Your task to perform on an android device: uninstall "AliExpress" Image 0: 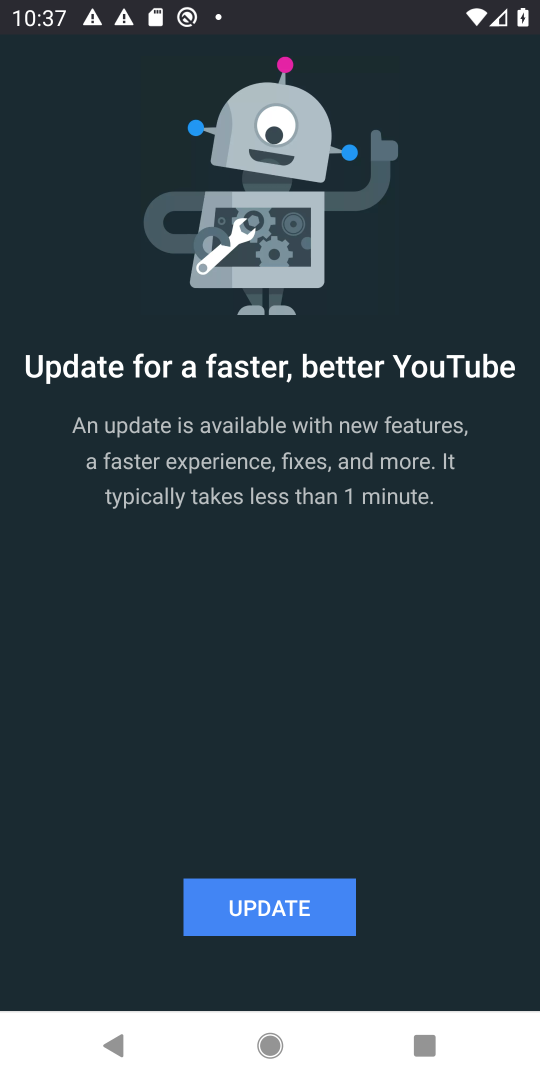
Step 0: press home button
Your task to perform on an android device: uninstall "AliExpress" Image 1: 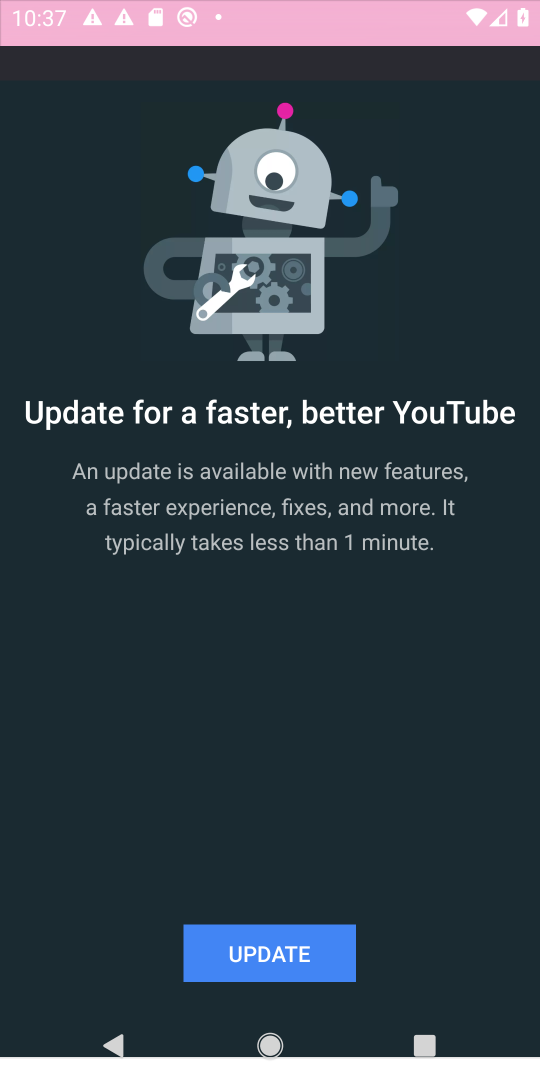
Step 1: drag from (195, 827) to (88, 656)
Your task to perform on an android device: uninstall "AliExpress" Image 2: 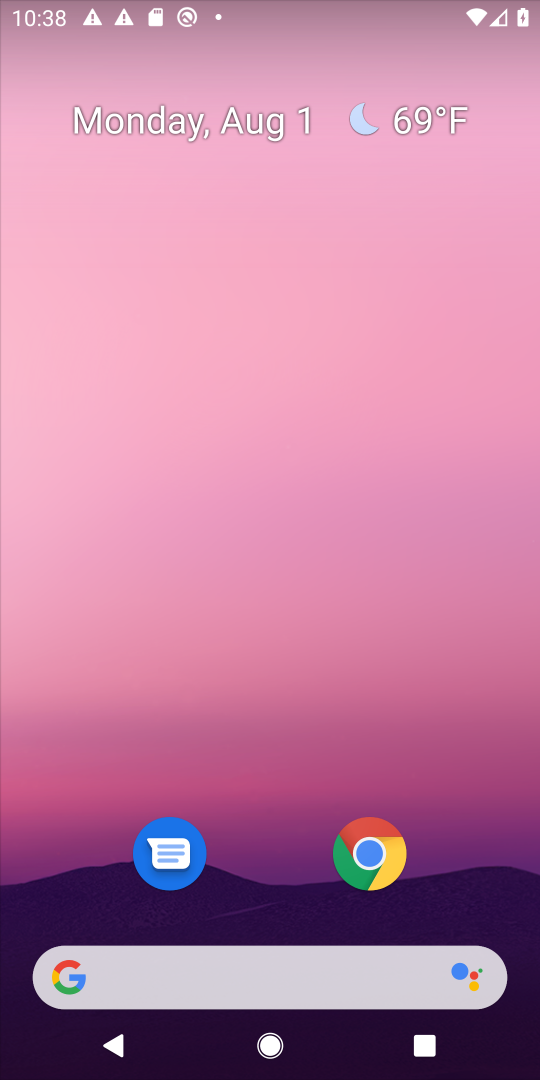
Step 2: drag from (253, 792) to (171, 13)
Your task to perform on an android device: uninstall "AliExpress" Image 3: 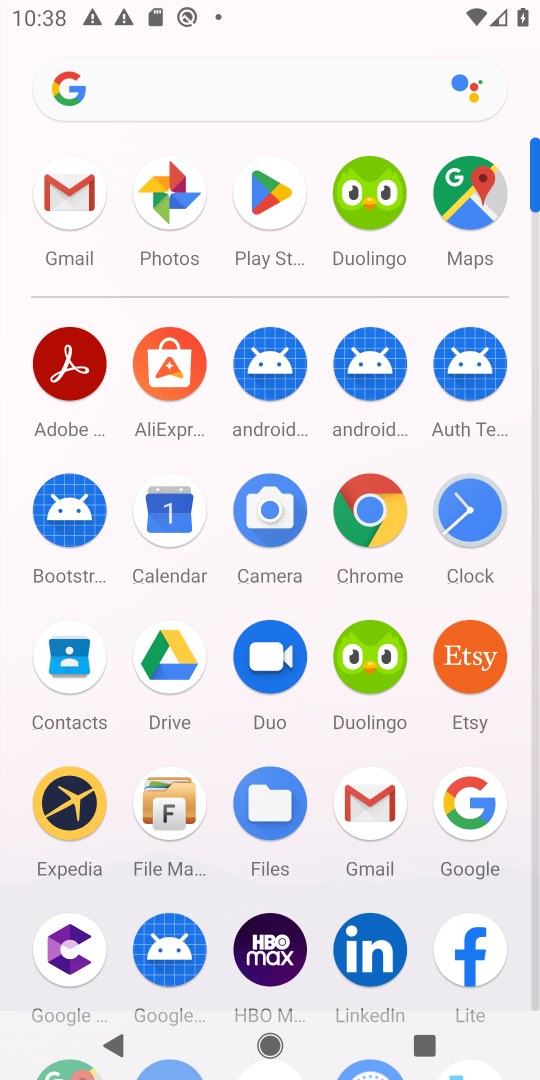
Step 3: click (258, 205)
Your task to perform on an android device: uninstall "AliExpress" Image 4: 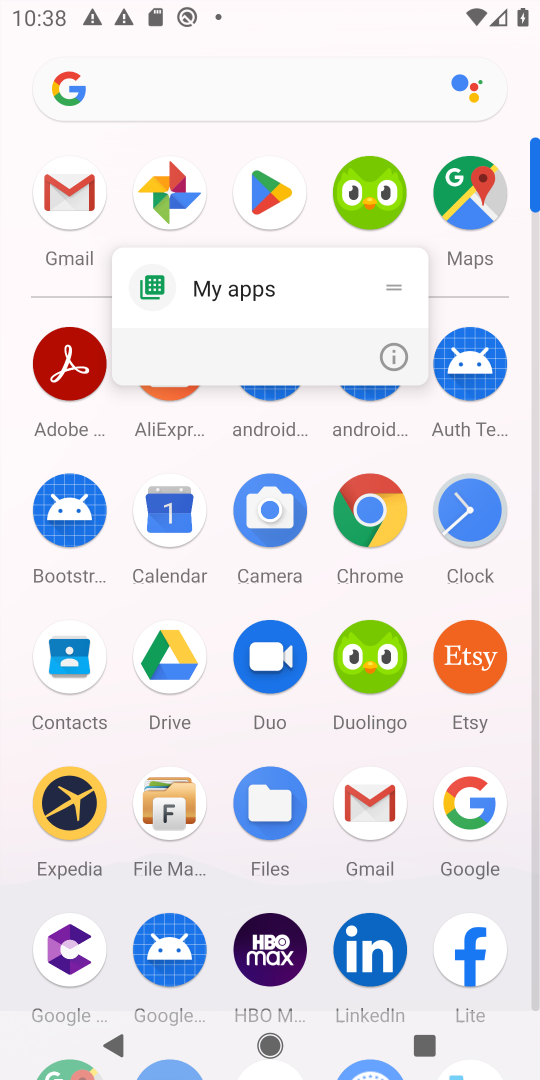
Step 4: click (400, 357)
Your task to perform on an android device: uninstall "AliExpress" Image 5: 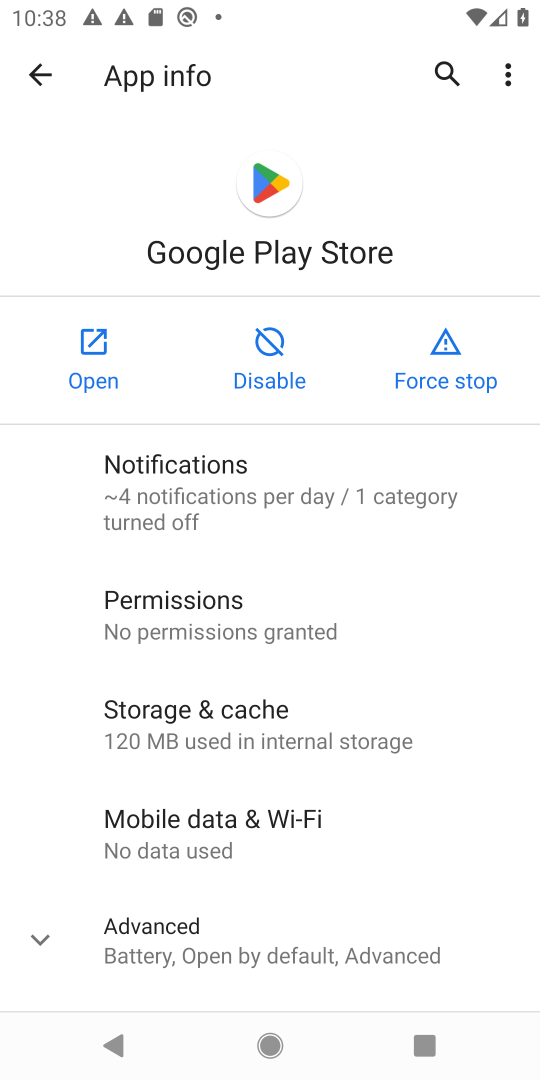
Step 5: click (86, 364)
Your task to perform on an android device: uninstall "AliExpress" Image 6: 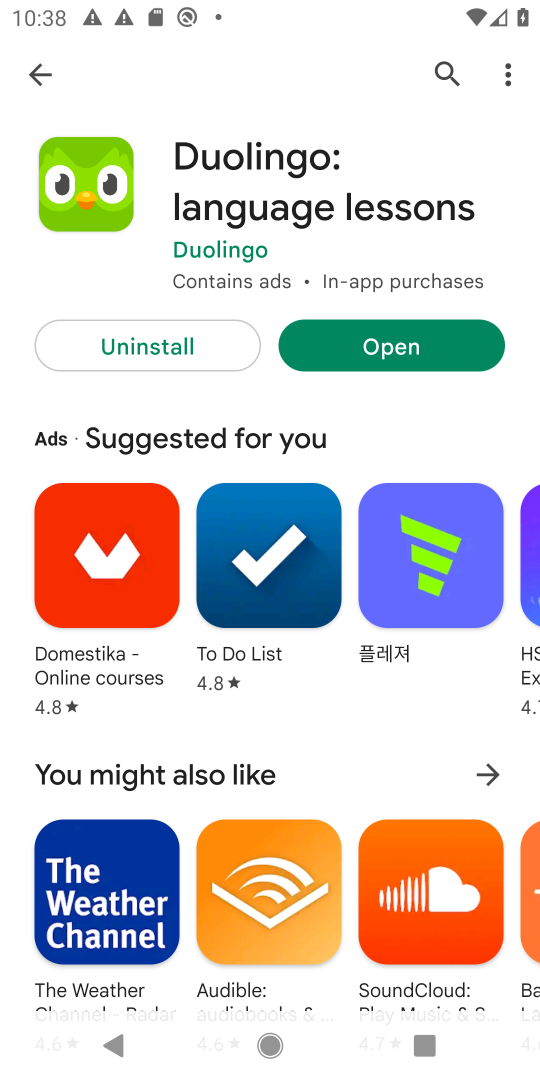
Step 6: click (439, 71)
Your task to perform on an android device: uninstall "AliExpress" Image 7: 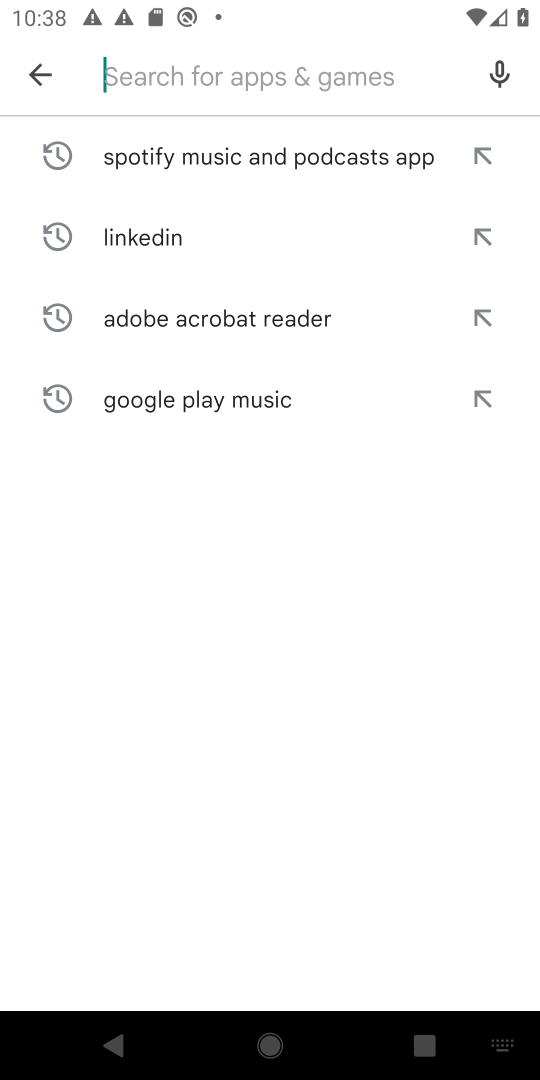
Step 7: type "AliExpress"
Your task to perform on an android device: uninstall "AliExpress" Image 8: 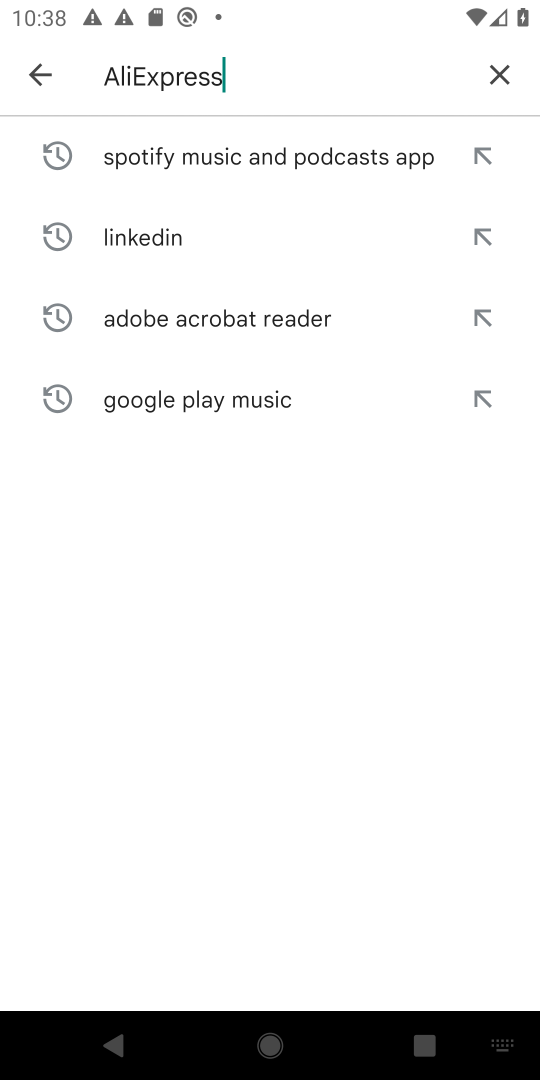
Step 8: type ""
Your task to perform on an android device: uninstall "AliExpress" Image 9: 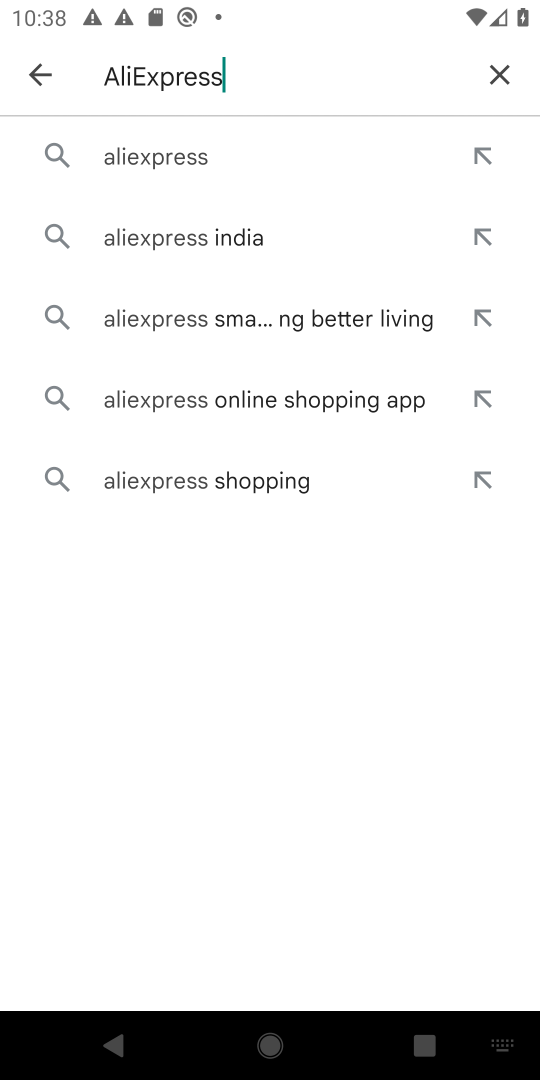
Step 9: click (150, 153)
Your task to perform on an android device: uninstall "AliExpress" Image 10: 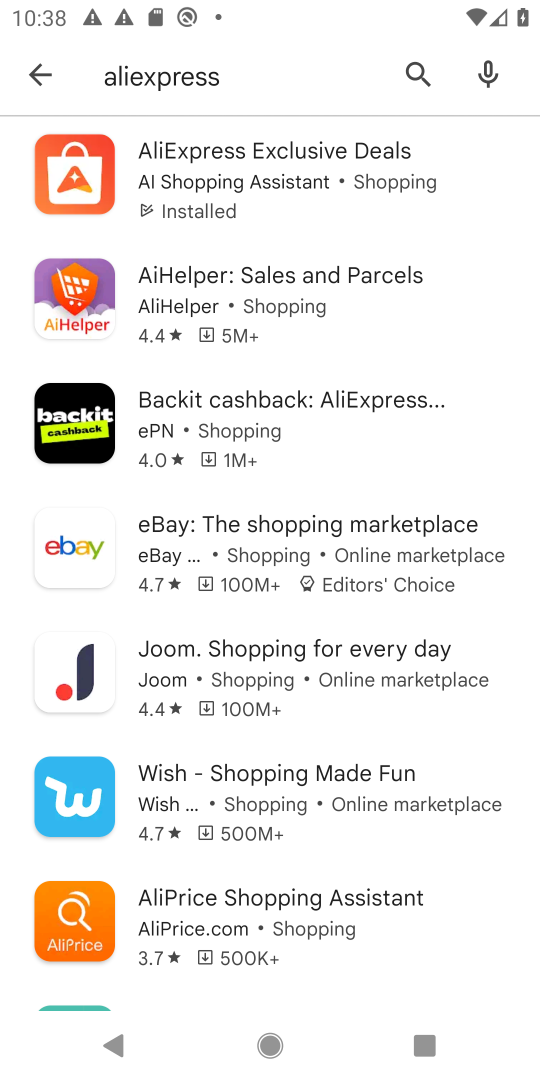
Step 10: click (272, 164)
Your task to perform on an android device: uninstall "AliExpress" Image 11: 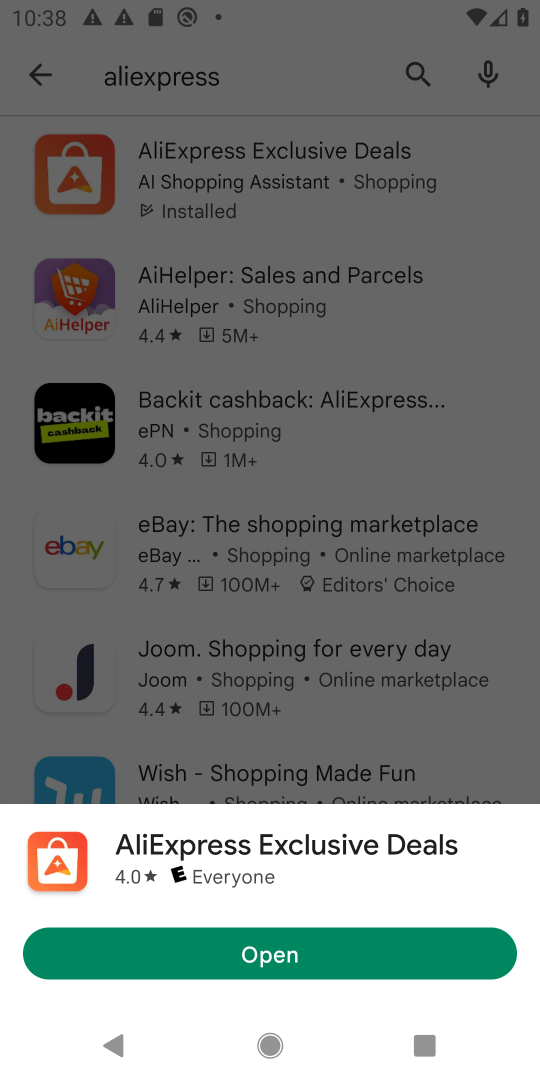
Step 11: click (264, 195)
Your task to perform on an android device: uninstall "AliExpress" Image 12: 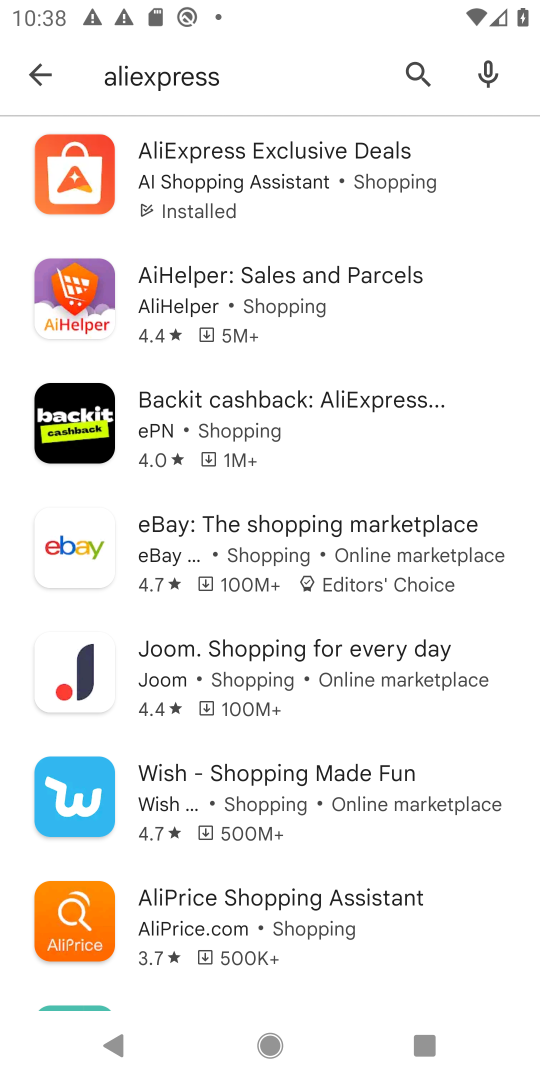
Step 12: click (215, 170)
Your task to perform on an android device: uninstall "AliExpress" Image 13: 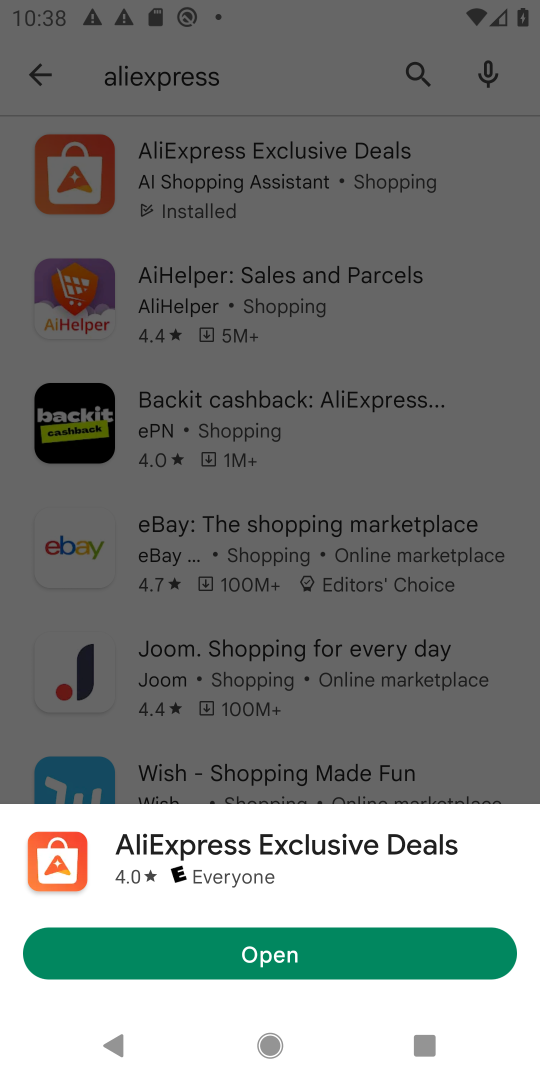
Step 13: click (80, 148)
Your task to perform on an android device: uninstall "AliExpress" Image 14: 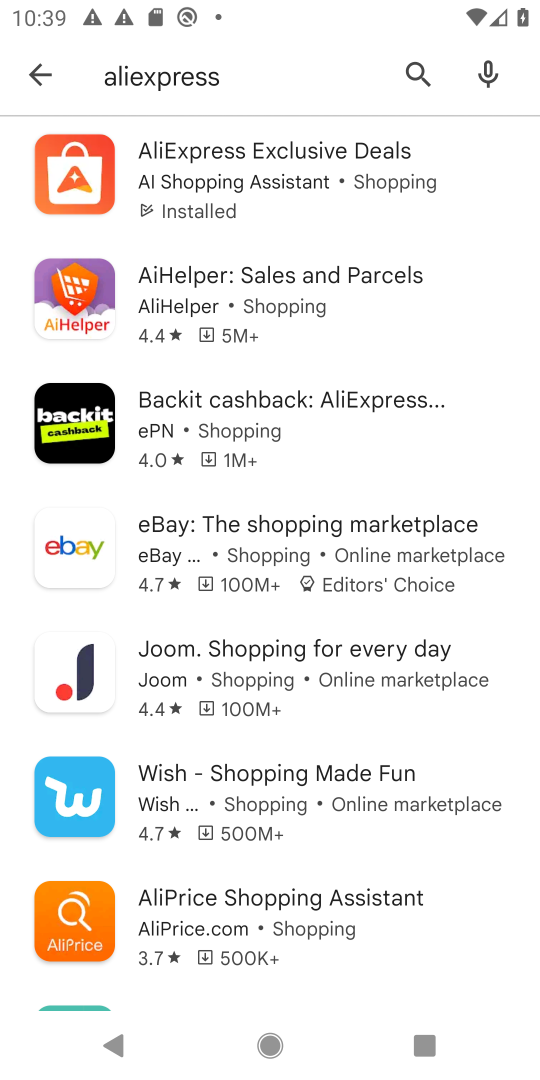
Step 14: click (90, 170)
Your task to perform on an android device: uninstall "AliExpress" Image 15: 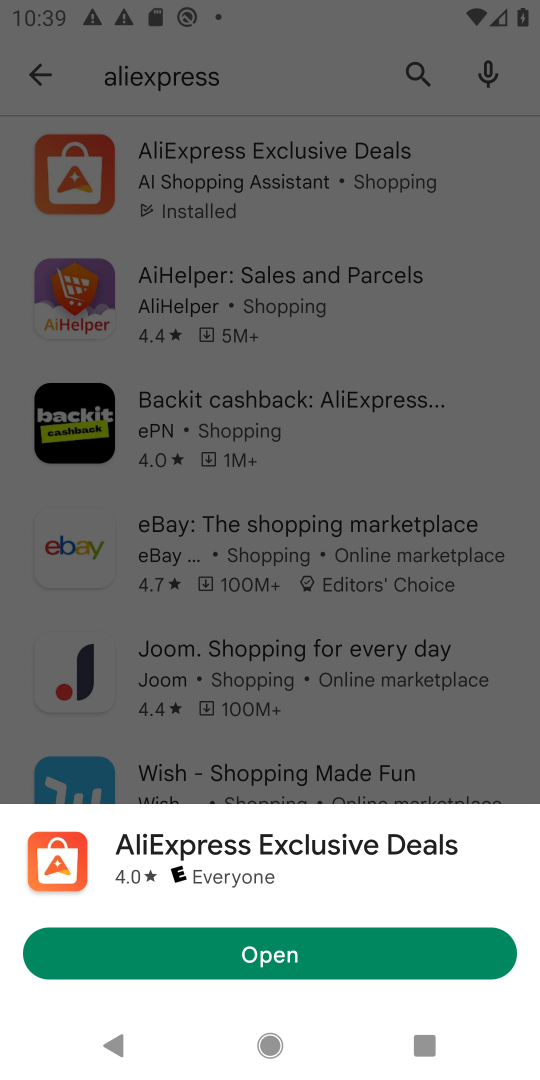
Step 15: click (87, 173)
Your task to perform on an android device: uninstall "AliExpress" Image 16: 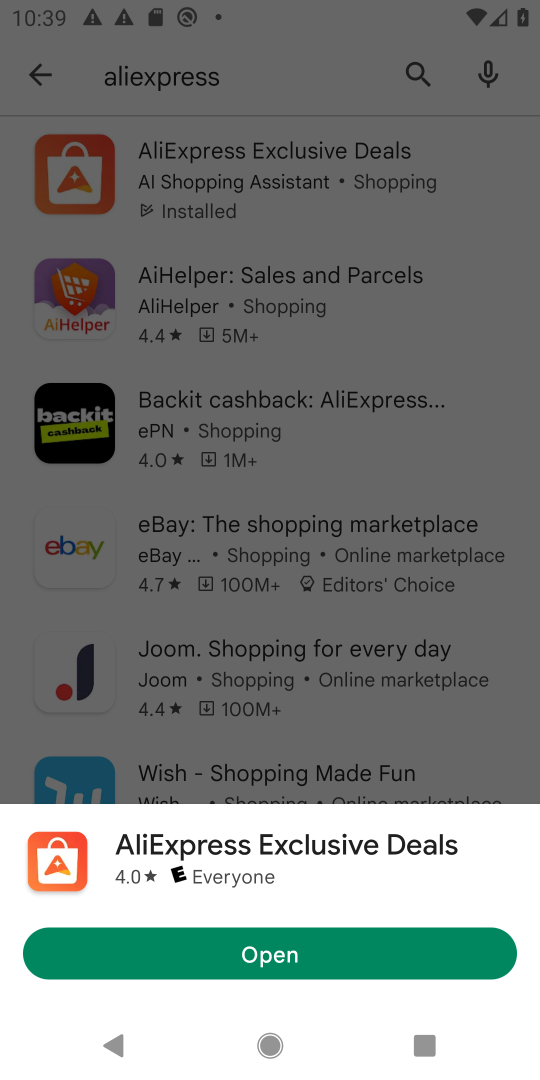
Step 16: click (87, 173)
Your task to perform on an android device: uninstall "AliExpress" Image 17: 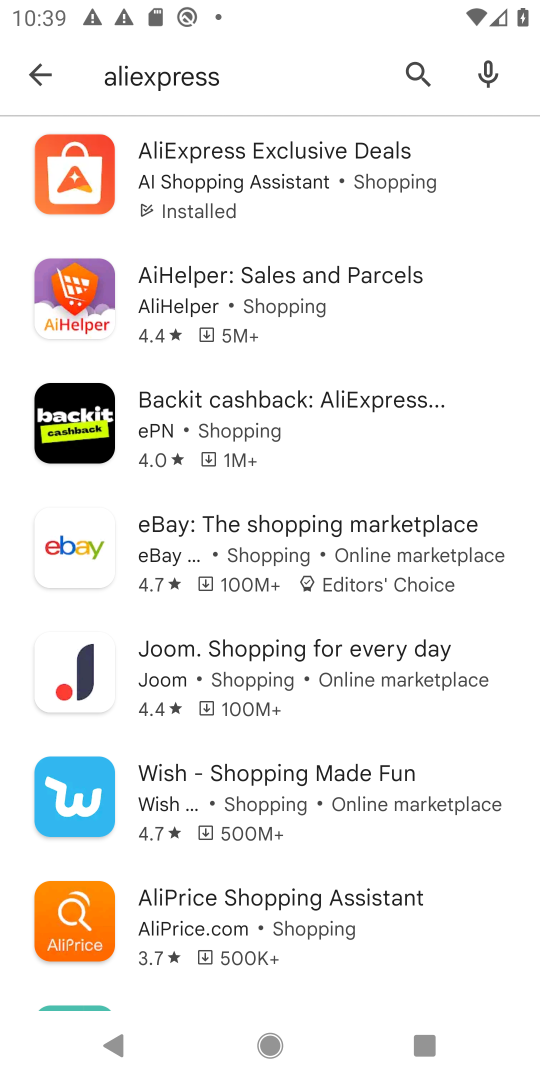
Step 17: click (110, 166)
Your task to perform on an android device: uninstall "AliExpress" Image 18: 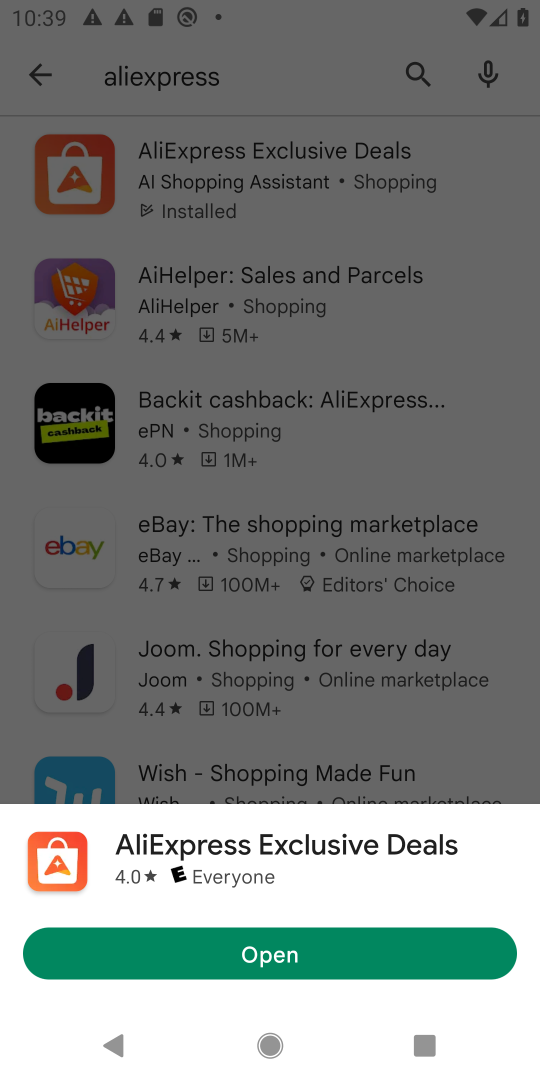
Step 18: click (217, 941)
Your task to perform on an android device: uninstall "AliExpress" Image 19: 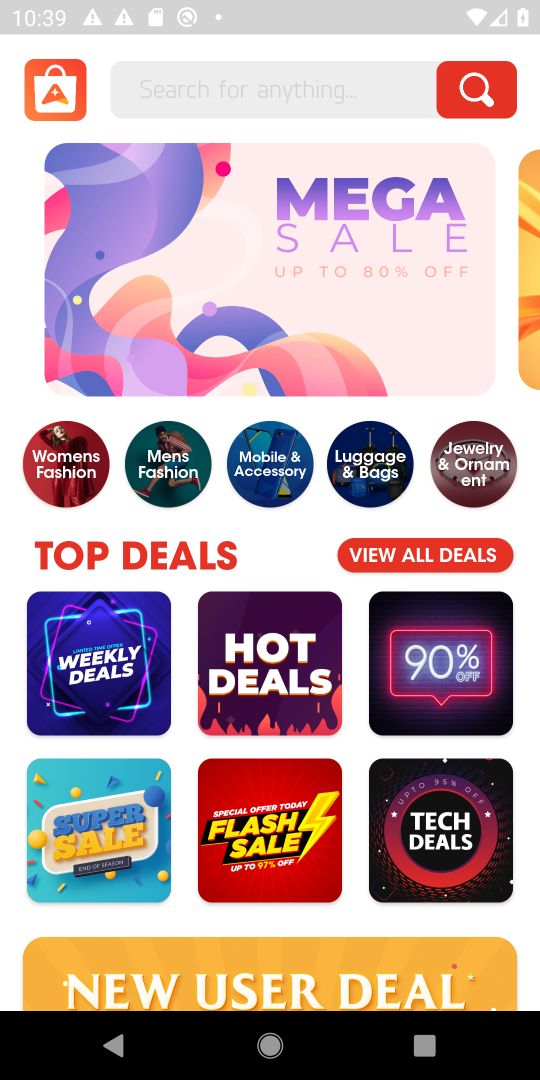
Step 19: press back button
Your task to perform on an android device: uninstall "AliExpress" Image 20: 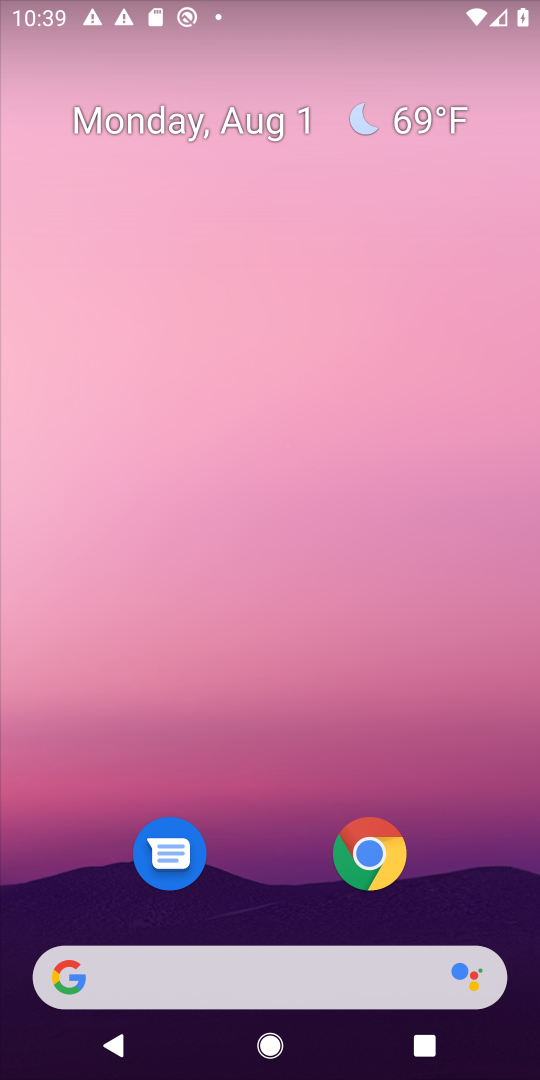
Step 20: drag from (223, 886) to (375, 318)
Your task to perform on an android device: uninstall "AliExpress" Image 21: 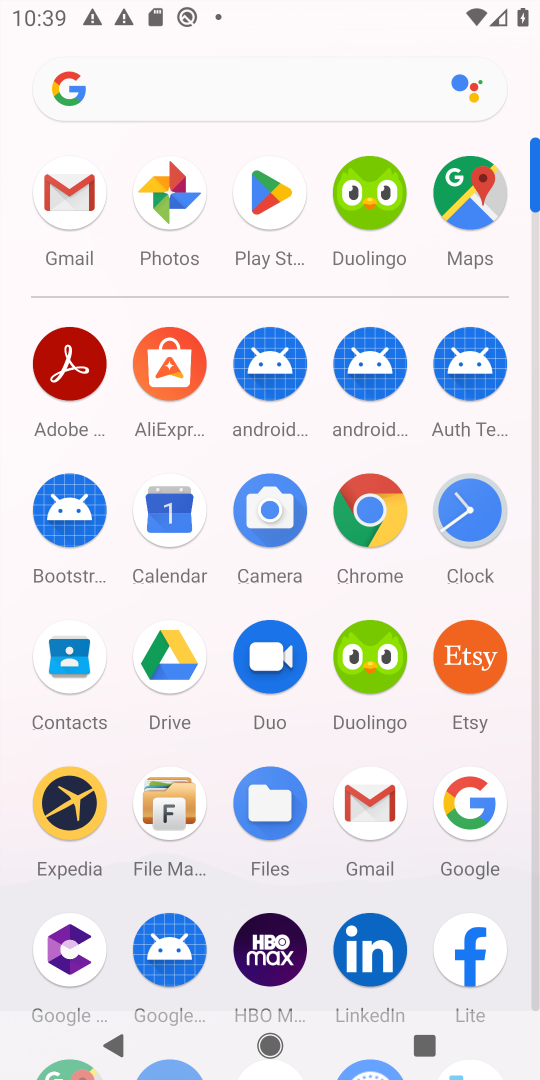
Step 21: drag from (167, 381) to (416, 89)
Your task to perform on an android device: uninstall "AliExpress" Image 22: 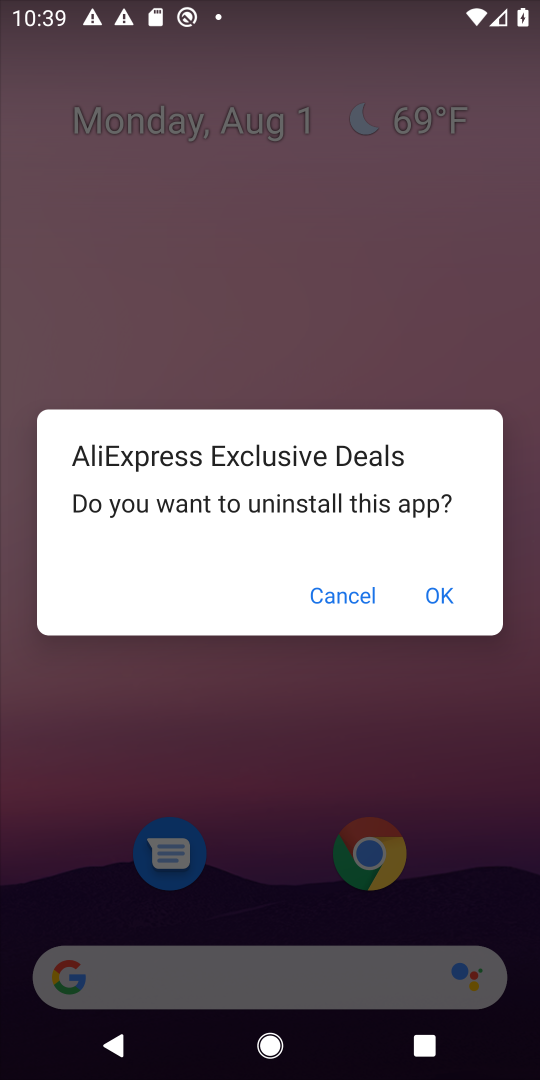
Step 22: click (433, 587)
Your task to perform on an android device: uninstall "AliExpress" Image 23: 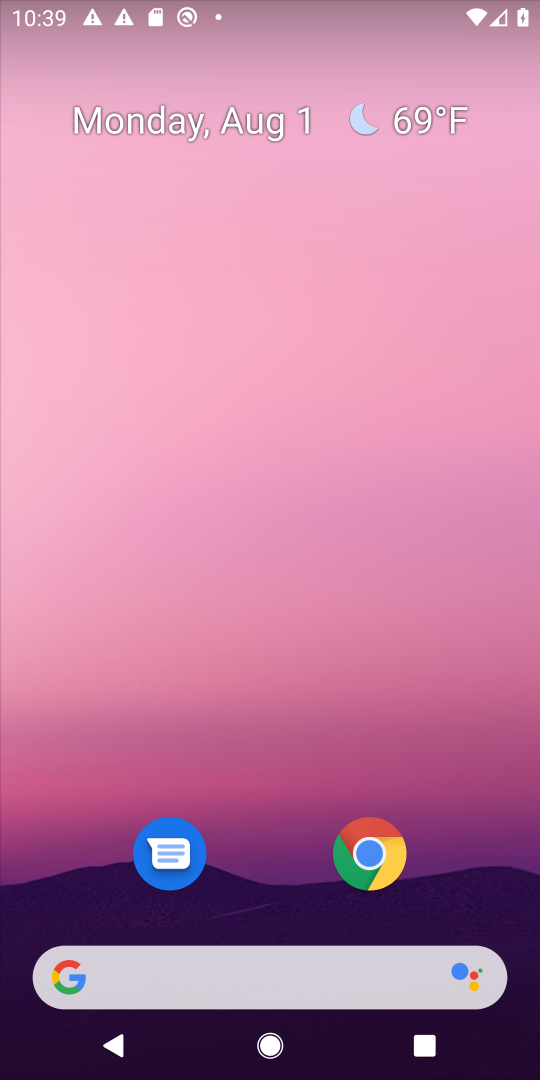
Step 23: task complete